Your task to perform on an android device: Search for seafood restaurants on Google Maps Image 0: 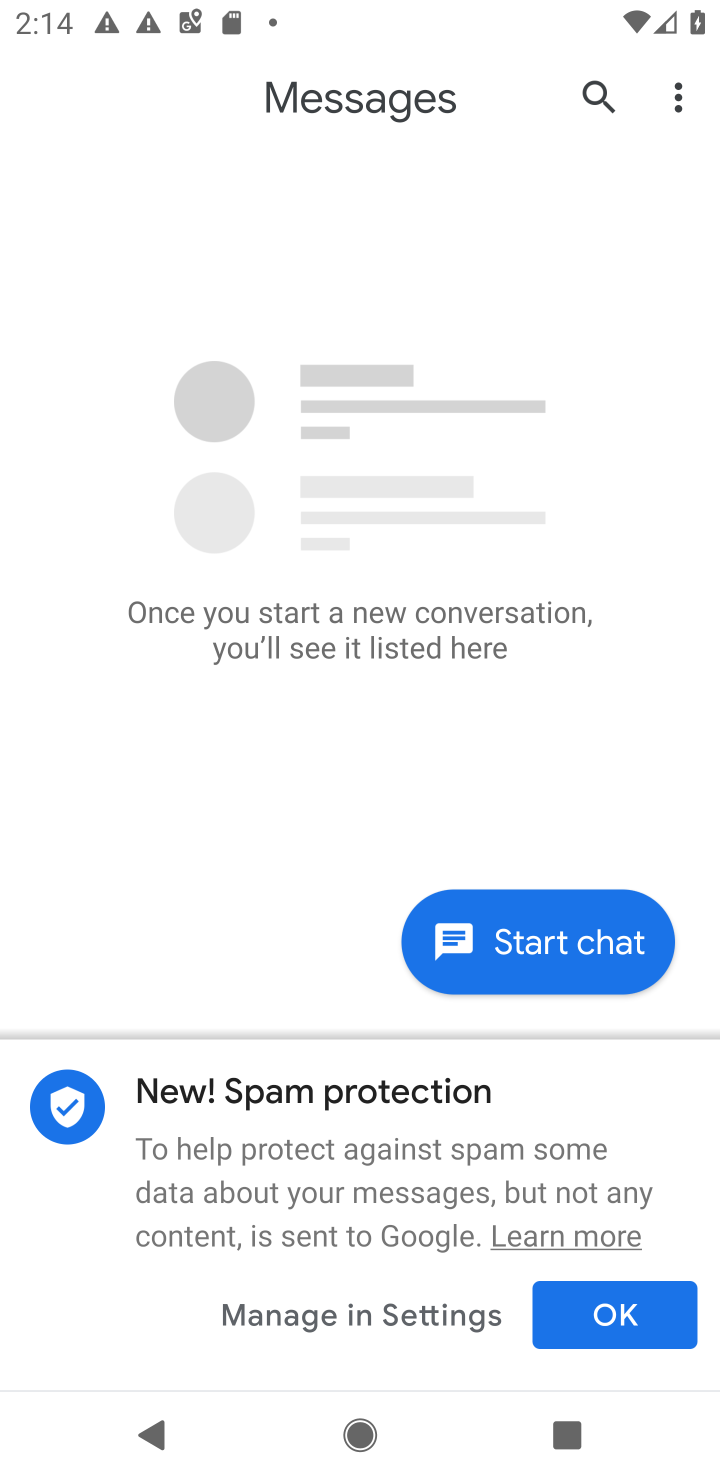
Step 0: press home button
Your task to perform on an android device: Search for seafood restaurants on Google Maps Image 1: 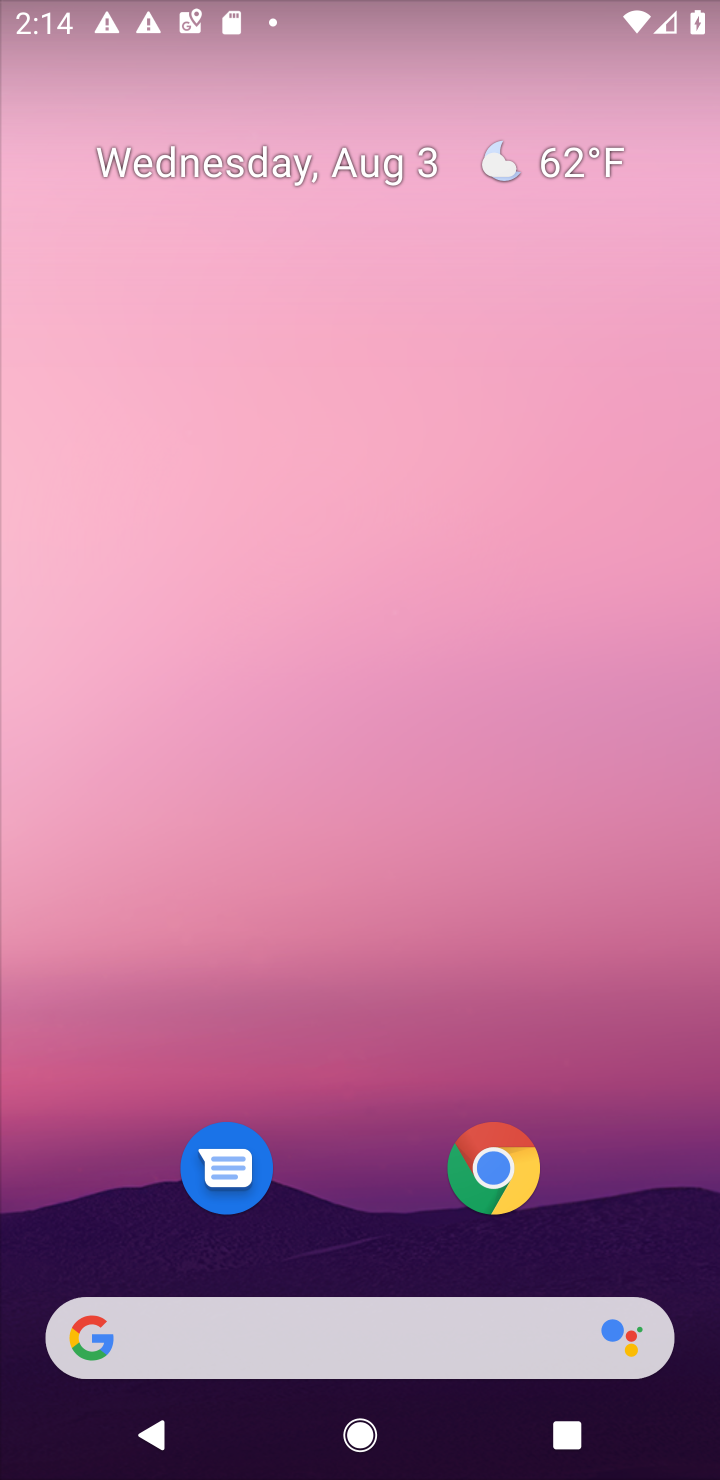
Step 1: drag from (640, 1220) to (597, 212)
Your task to perform on an android device: Search for seafood restaurants on Google Maps Image 2: 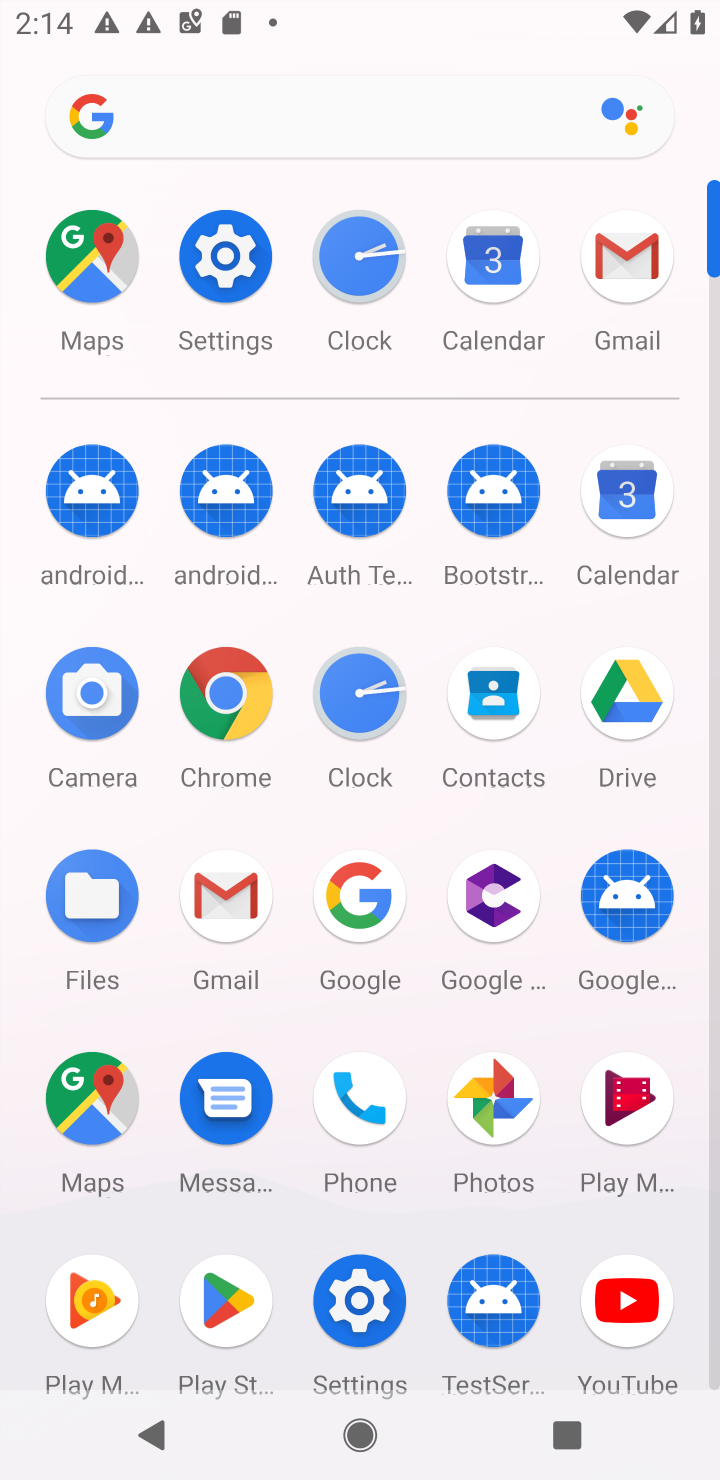
Step 2: click (90, 1106)
Your task to perform on an android device: Search for seafood restaurants on Google Maps Image 3: 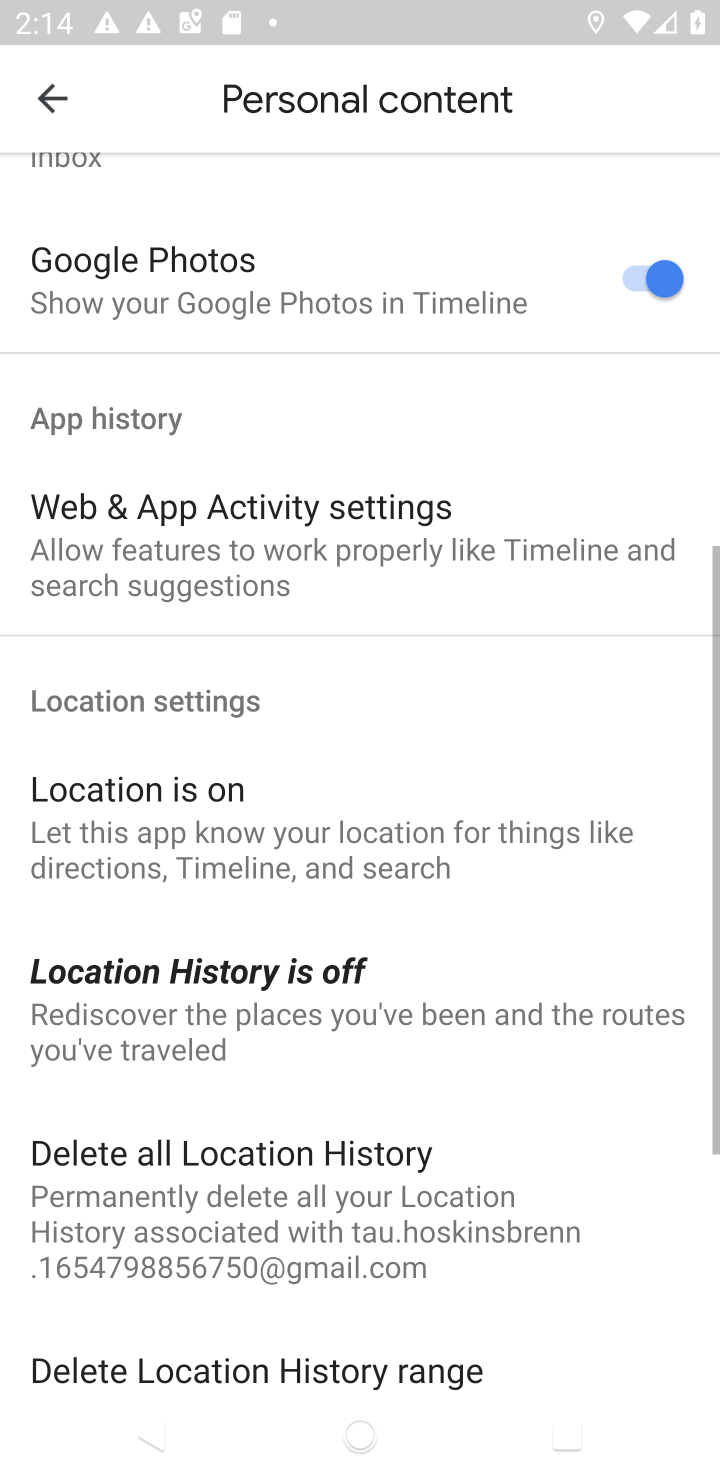
Step 3: press back button
Your task to perform on an android device: Search for seafood restaurants on Google Maps Image 4: 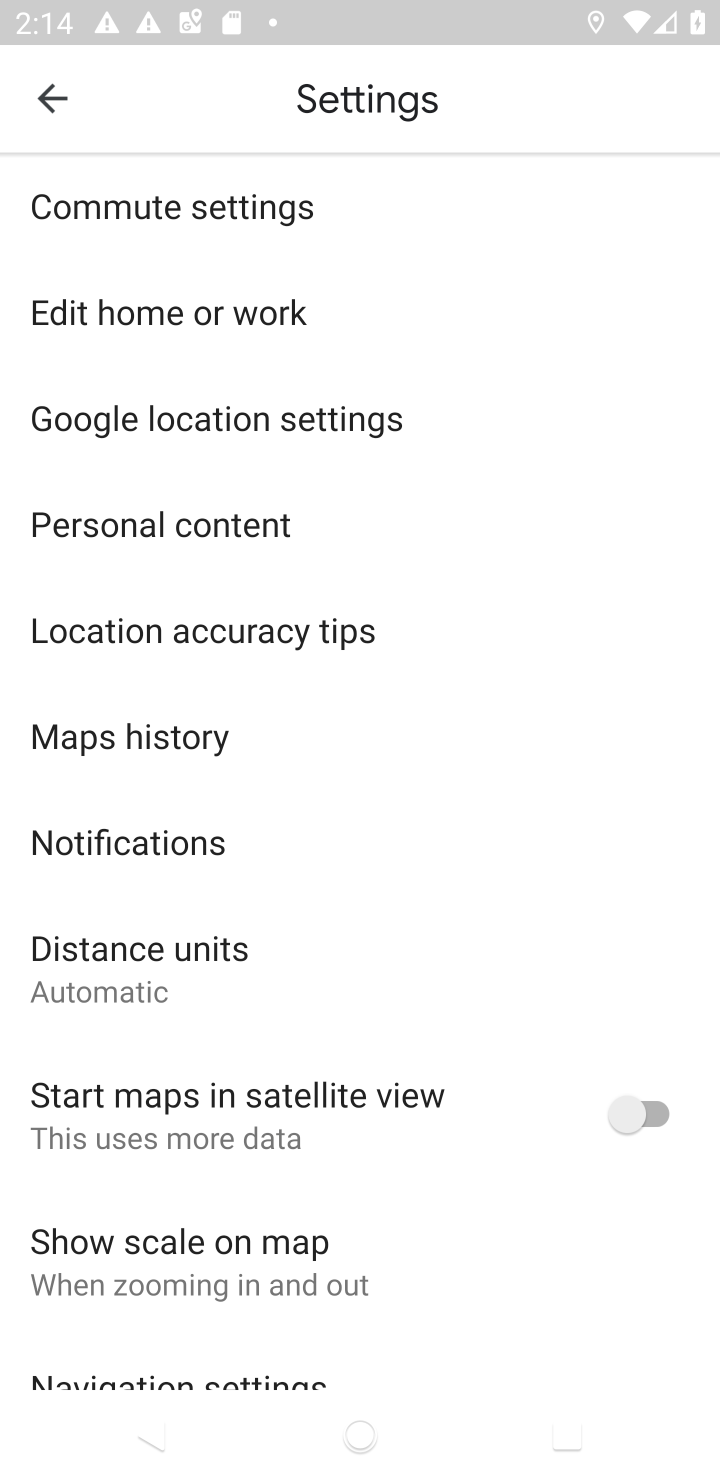
Step 4: press back button
Your task to perform on an android device: Search for seafood restaurants on Google Maps Image 5: 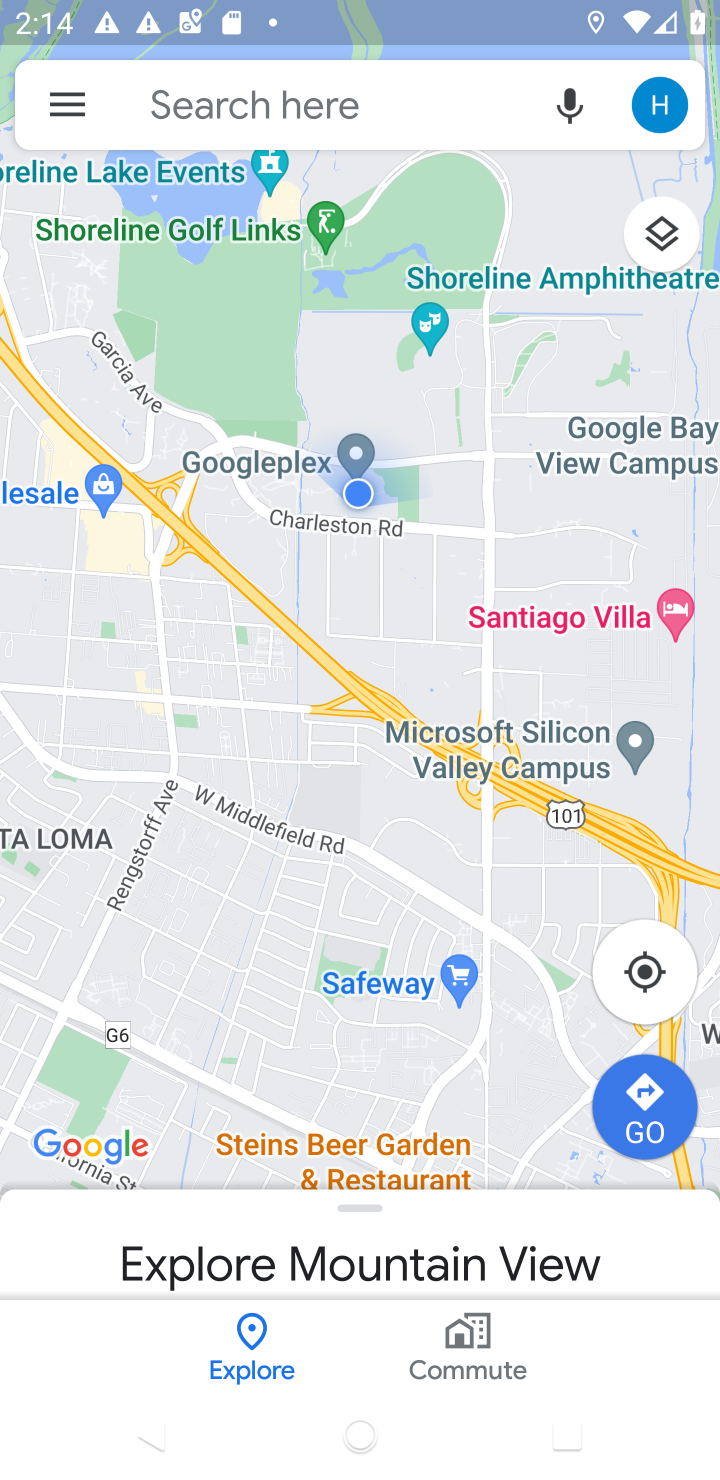
Step 5: click (258, 102)
Your task to perform on an android device: Search for seafood restaurants on Google Maps Image 6: 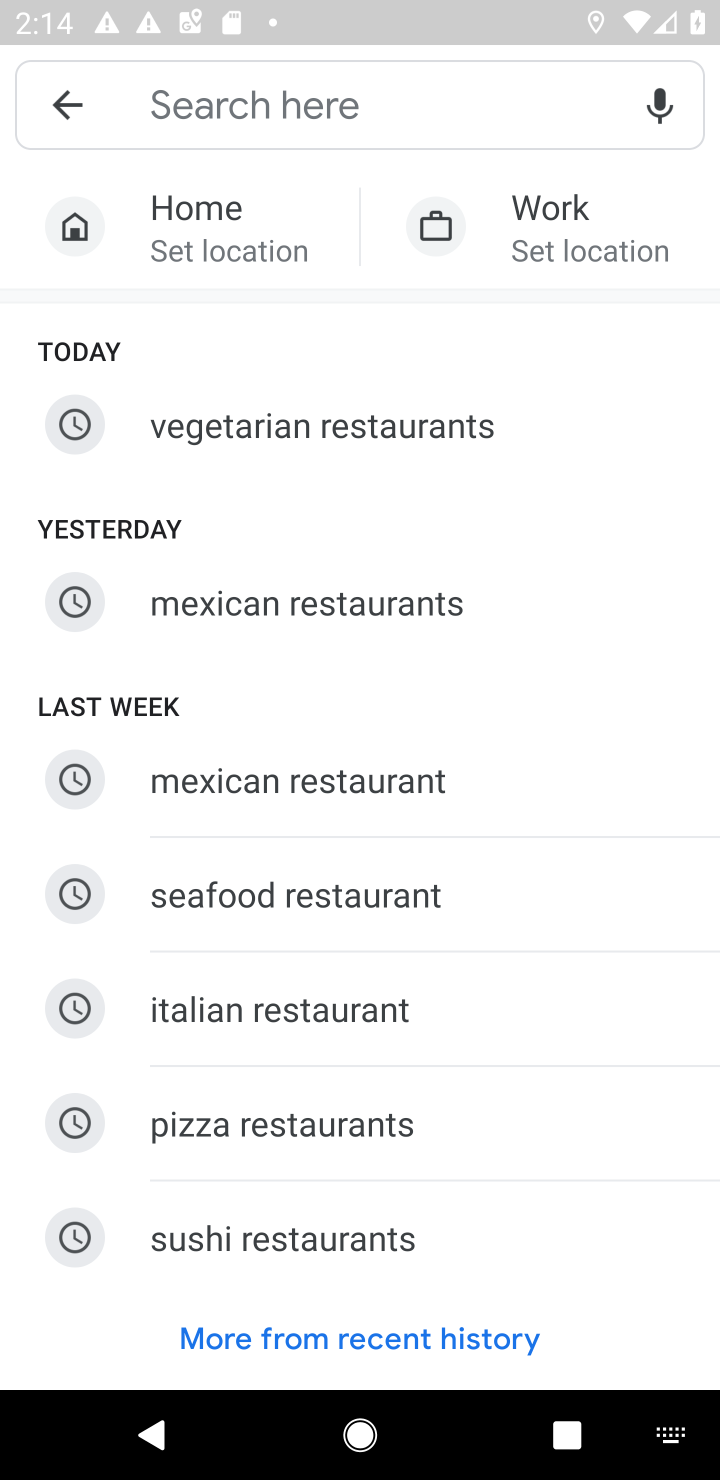
Step 6: type "seafood restaurants"
Your task to perform on an android device: Search for seafood restaurants on Google Maps Image 7: 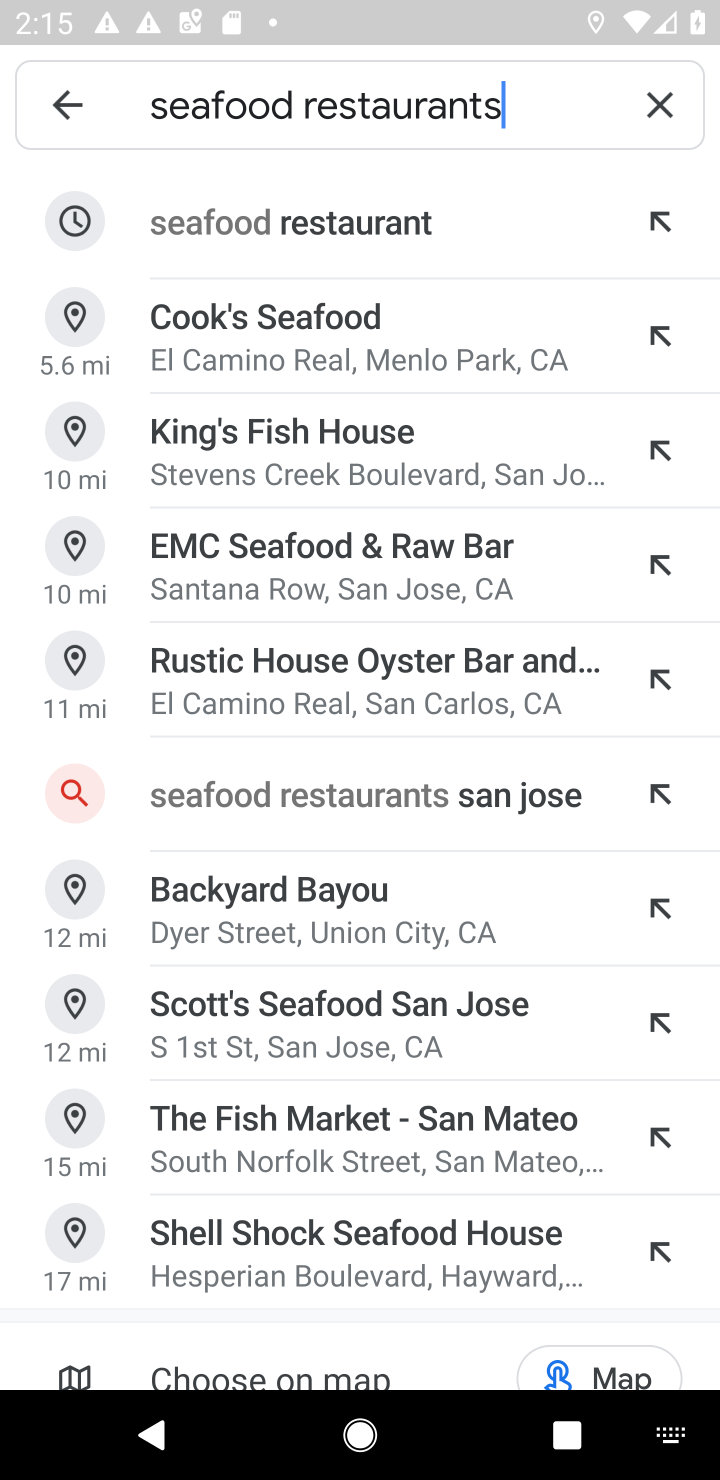
Step 7: click (307, 221)
Your task to perform on an android device: Search for seafood restaurants on Google Maps Image 8: 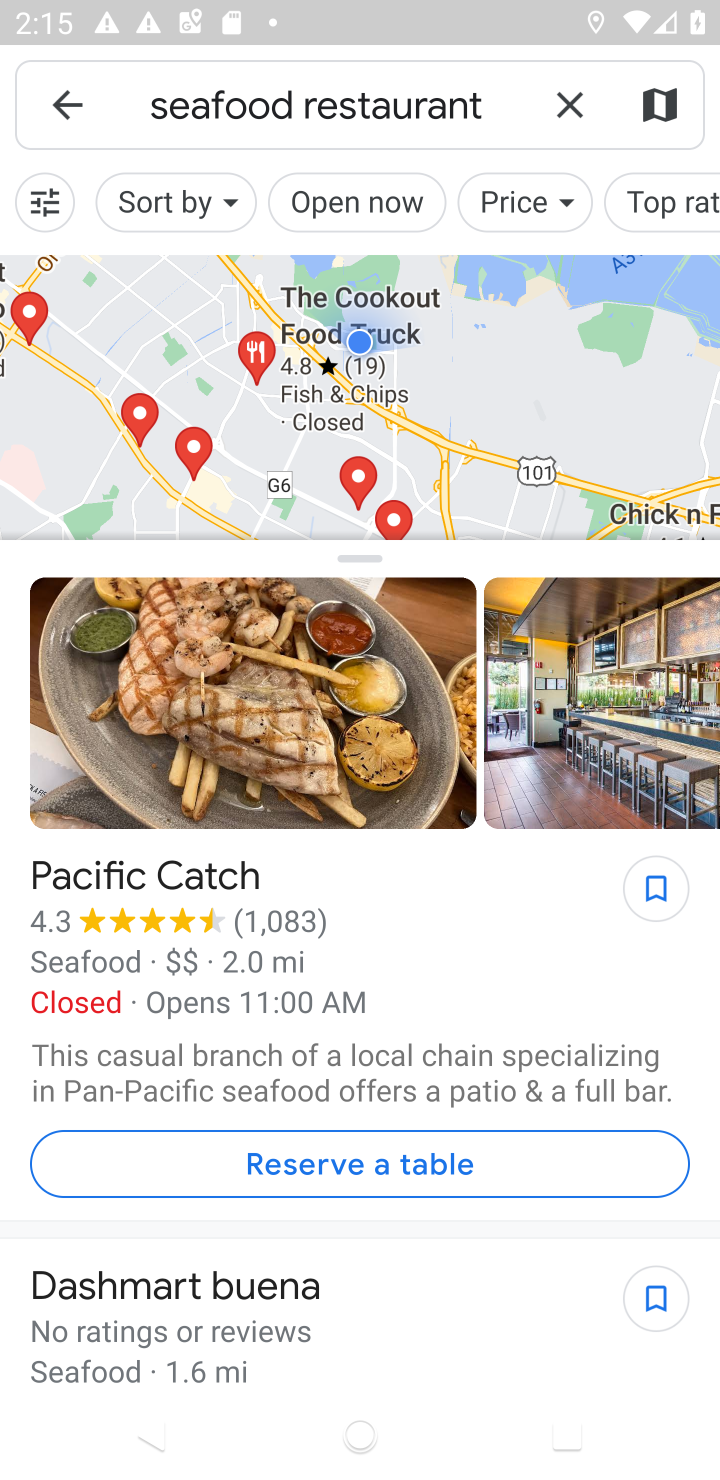
Step 8: task complete